Your task to perform on an android device: Go to Android settings Image 0: 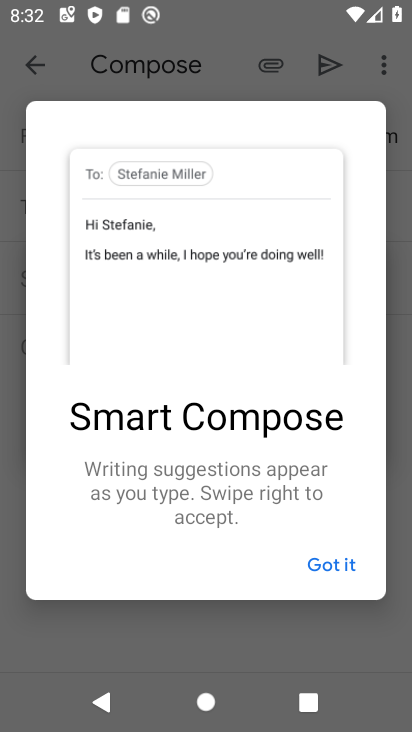
Step 0: press home button
Your task to perform on an android device: Go to Android settings Image 1: 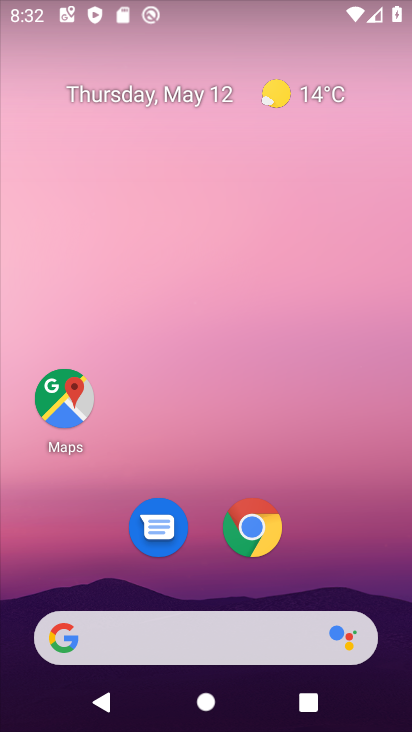
Step 1: drag from (340, 584) to (319, 211)
Your task to perform on an android device: Go to Android settings Image 2: 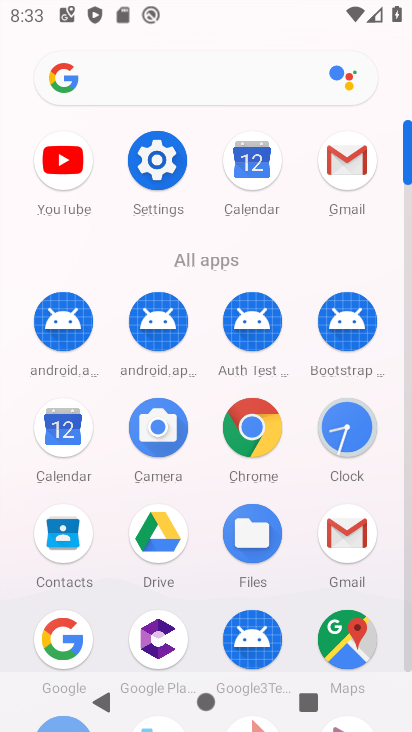
Step 2: click (169, 181)
Your task to perform on an android device: Go to Android settings Image 3: 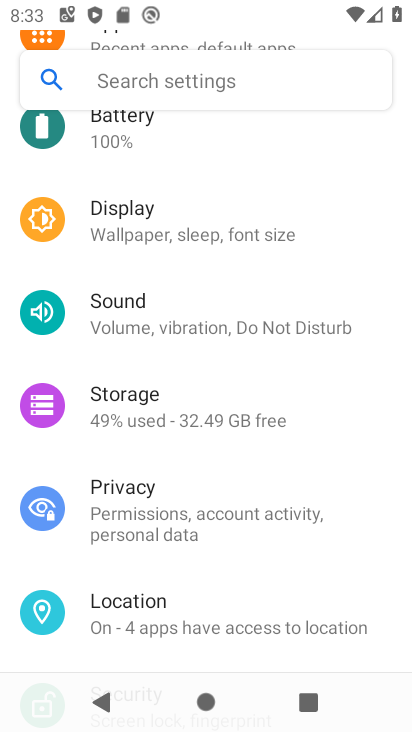
Step 3: task complete